Your task to perform on an android device: add a label to a message in the gmail app Image 0: 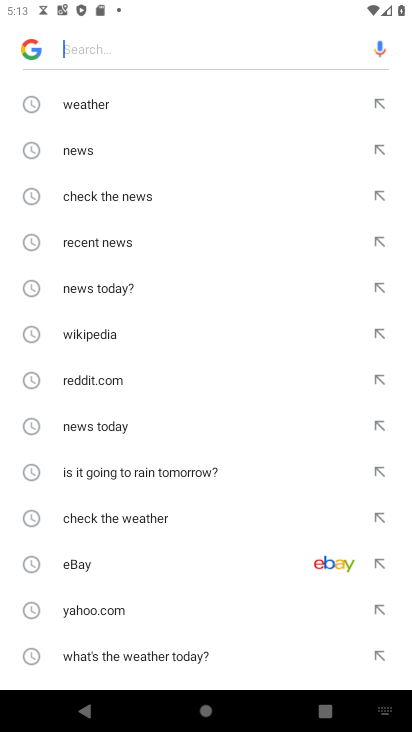
Step 0: press back button
Your task to perform on an android device: add a label to a message in the gmail app Image 1: 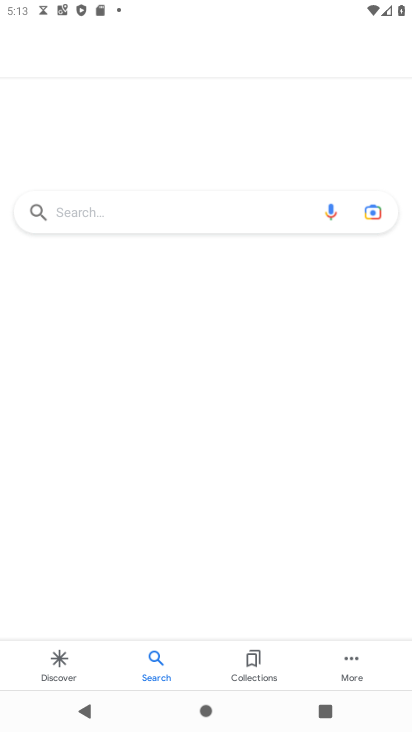
Step 1: press home button
Your task to perform on an android device: add a label to a message in the gmail app Image 2: 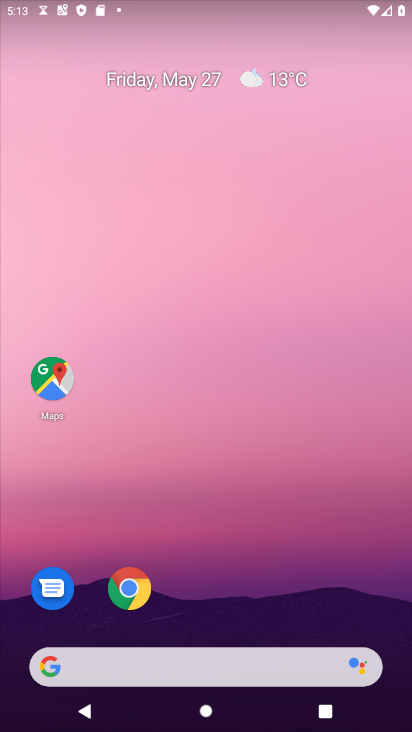
Step 2: drag from (208, 572) to (280, 15)
Your task to perform on an android device: add a label to a message in the gmail app Image 3: 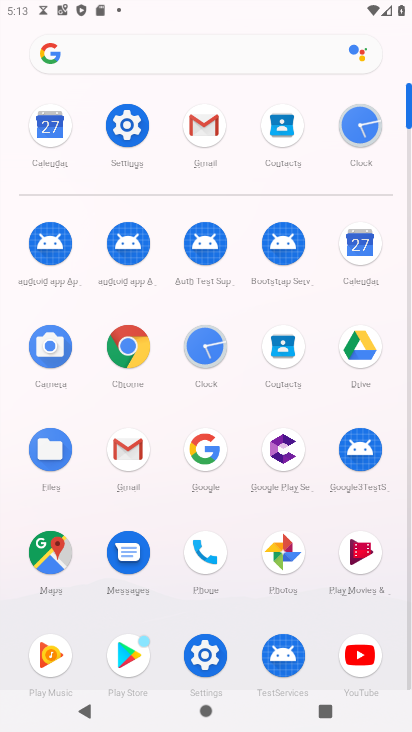
Step 3: click (211, 117)
Your task to perform on an android device: add a label to a message in the gmail app Image 4: 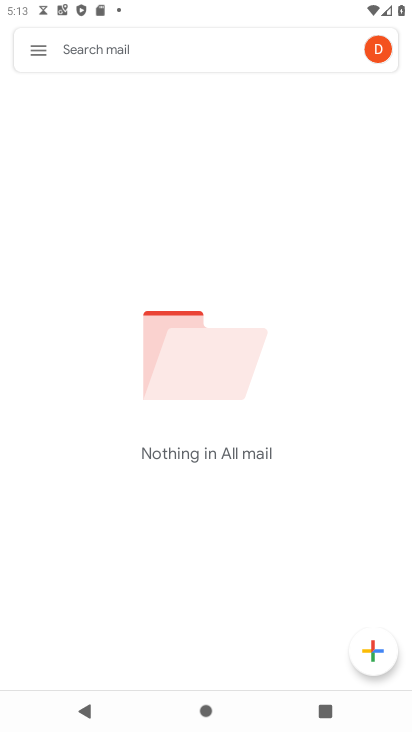
Step 4: click (36, 49)
Your task to perform on an android device: add a label to a message in the gmail app Image 5: 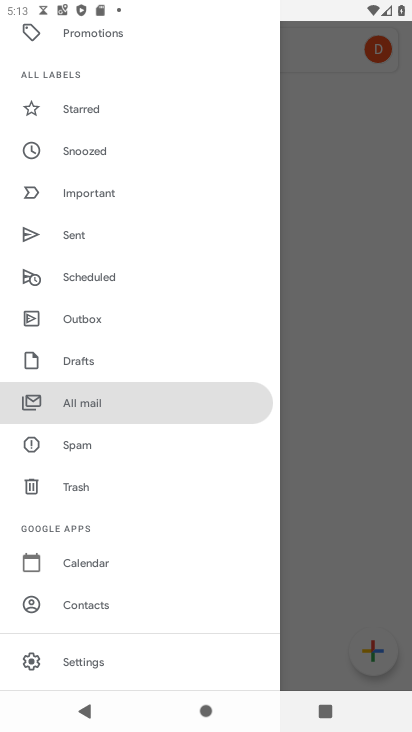
Step 5: click (74, 399)
Your task to perform on an android device: add a label to a message in the gmail app Image 6: 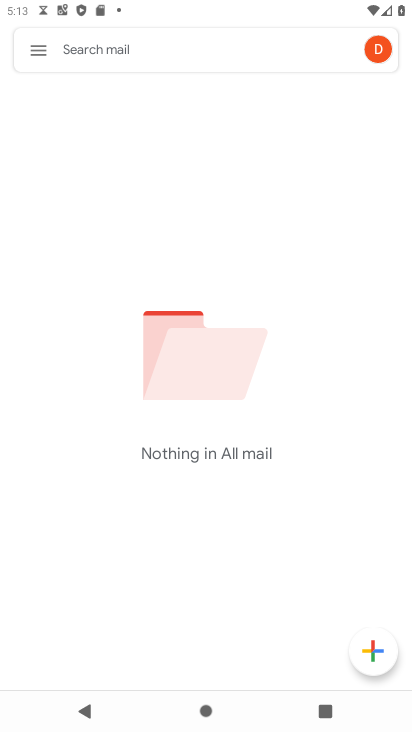
Step 6: task complete